Your task to perform on an android device: set the timer Image 0: 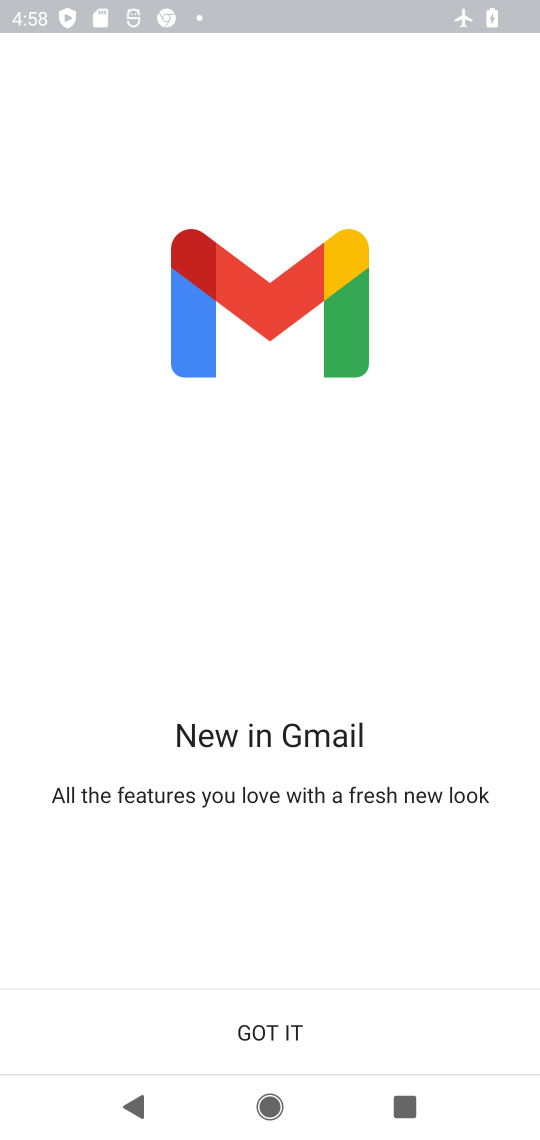
Step 0: press home button
Your task to perform on an android device: set the timer Image 1: 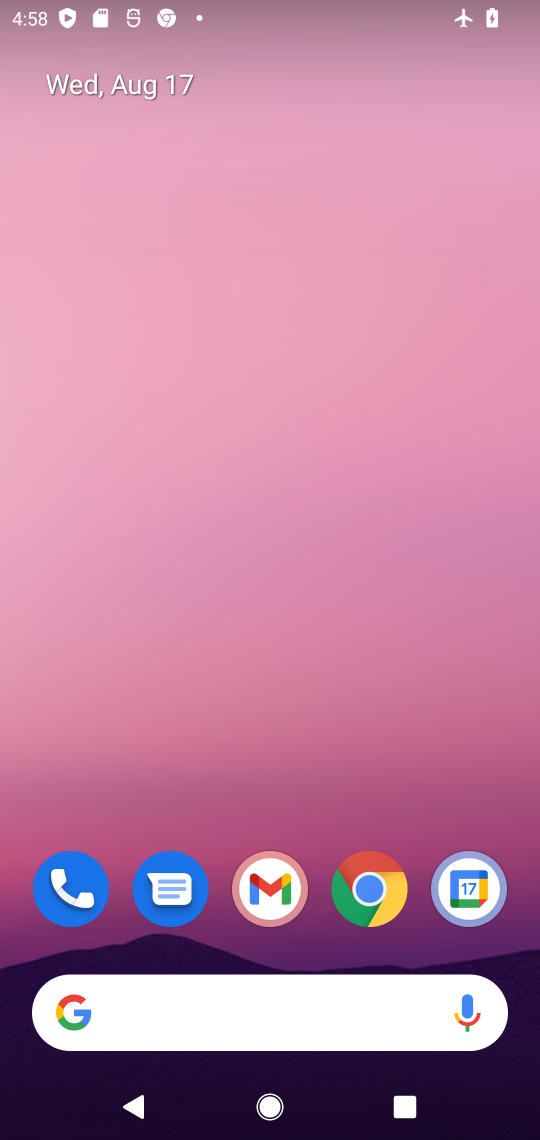
Step 1: drag from (293, 785) to (340, 51)
Your task to perform on an android device: set the timer Image 2: 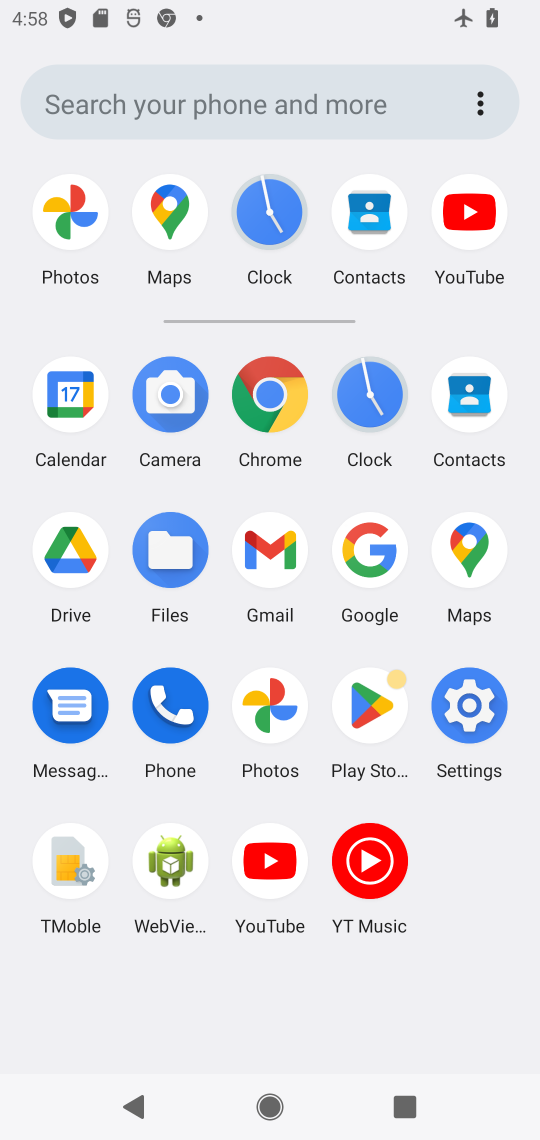
Step 2: click (271, 213)
Your task to perform on an android device: set the timer Image 3: 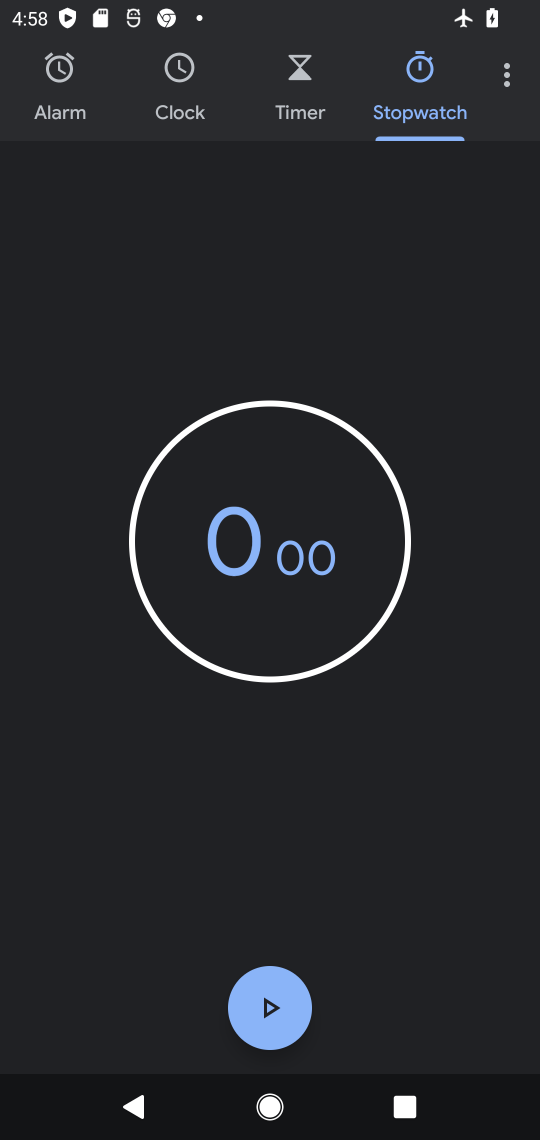
Step 3: click (298, 74)
Your task to perform on an android device: set the timer Image 4: 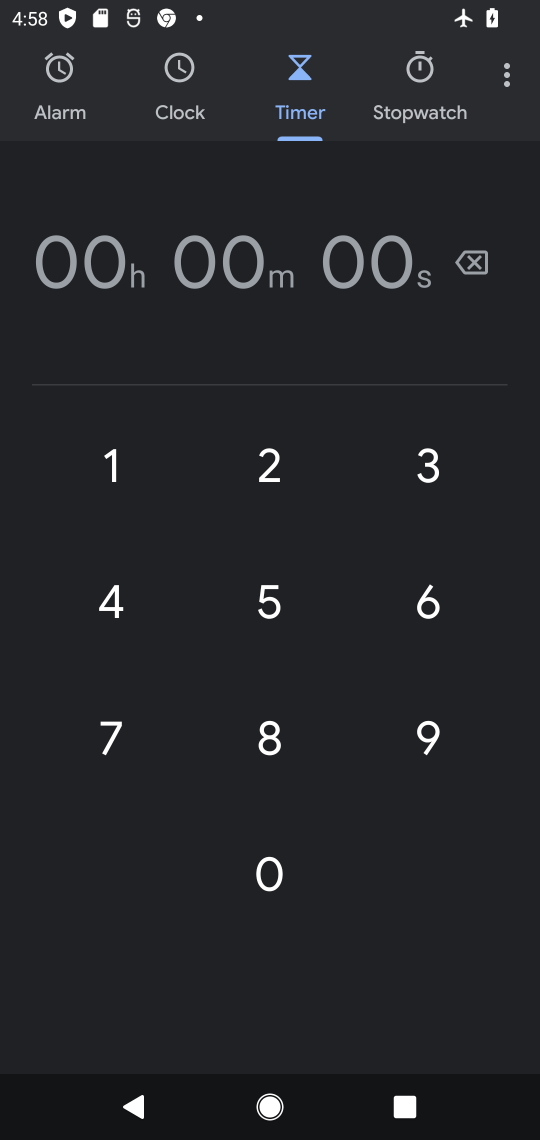
Step 4: click (119, 468)
Your task to perform on an android device: set the timer Image 5: 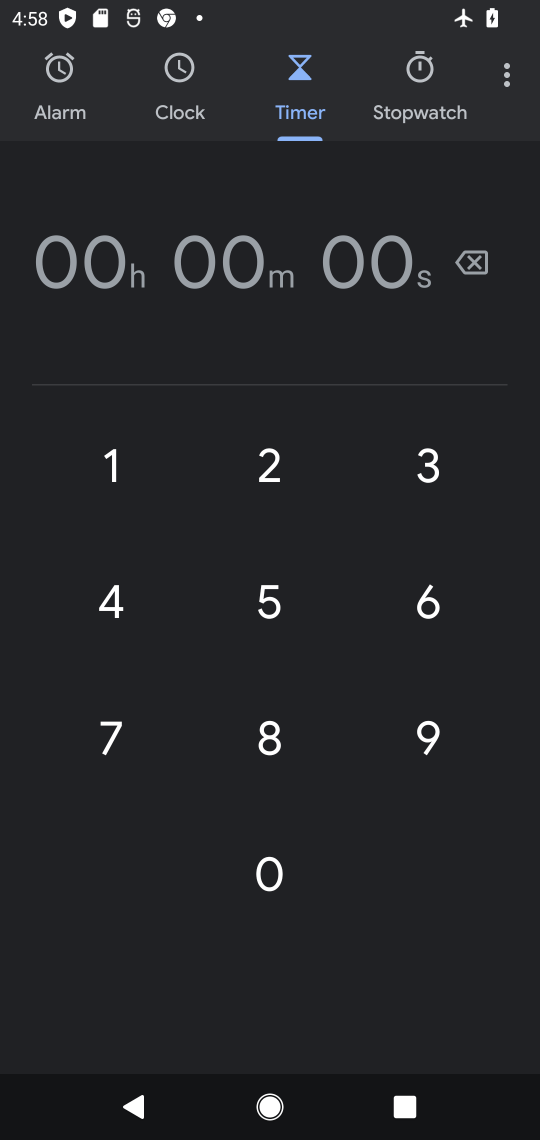
Step 5: click (119, 468)
Your task to perform on an android device: set the timer Image 6: 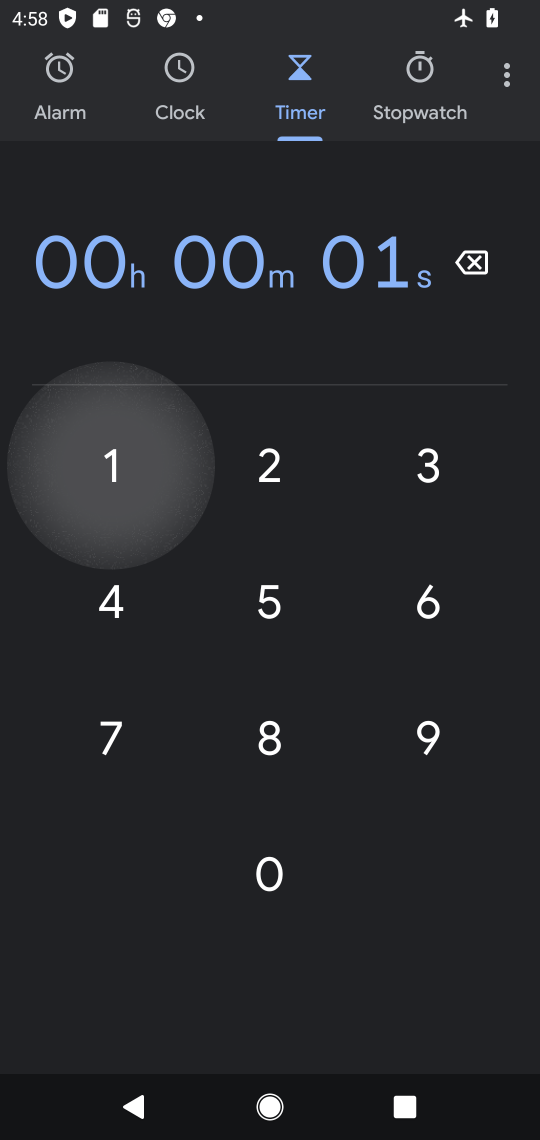
Step 6: click (119, 468)
Your task to perform on an android device: set the timer Image 7: 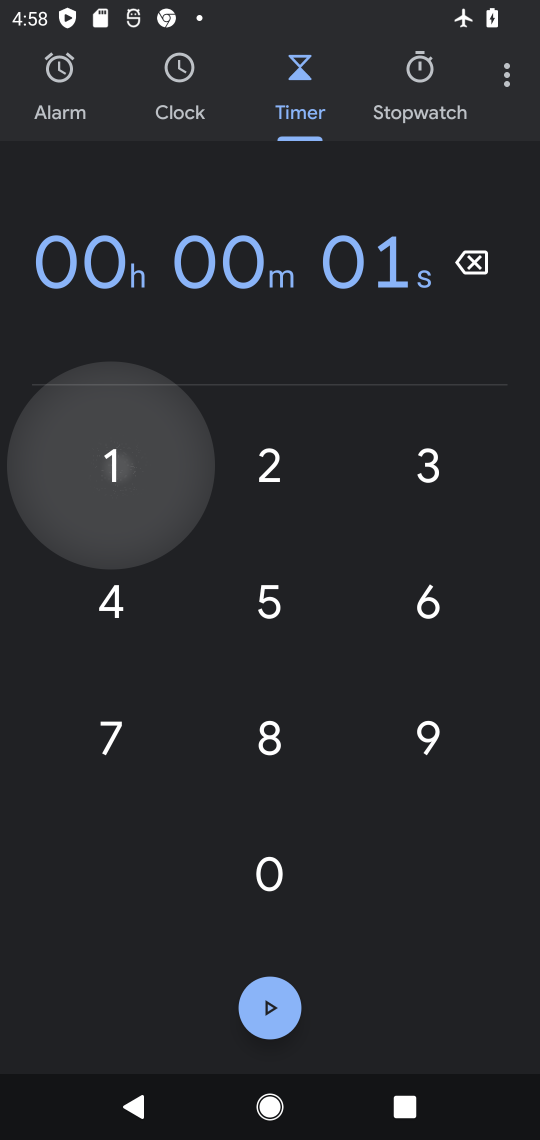
Step 7: click (119, 468)
Your task to perform on an android device: set the timer Image 8: 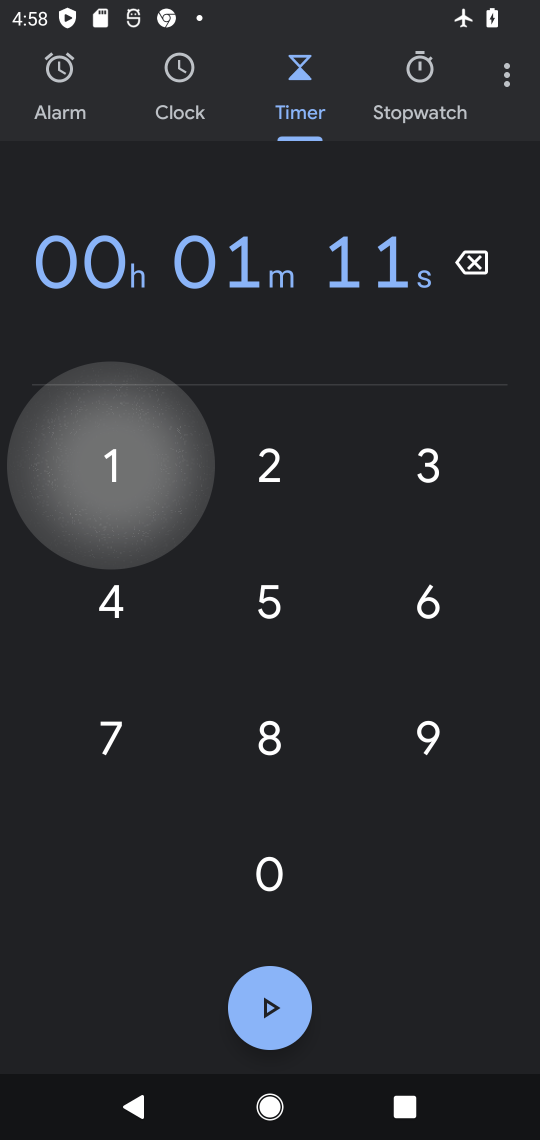
Step 8: click (119, 468)
Your task to perform on an android device: set the timer Image 9: 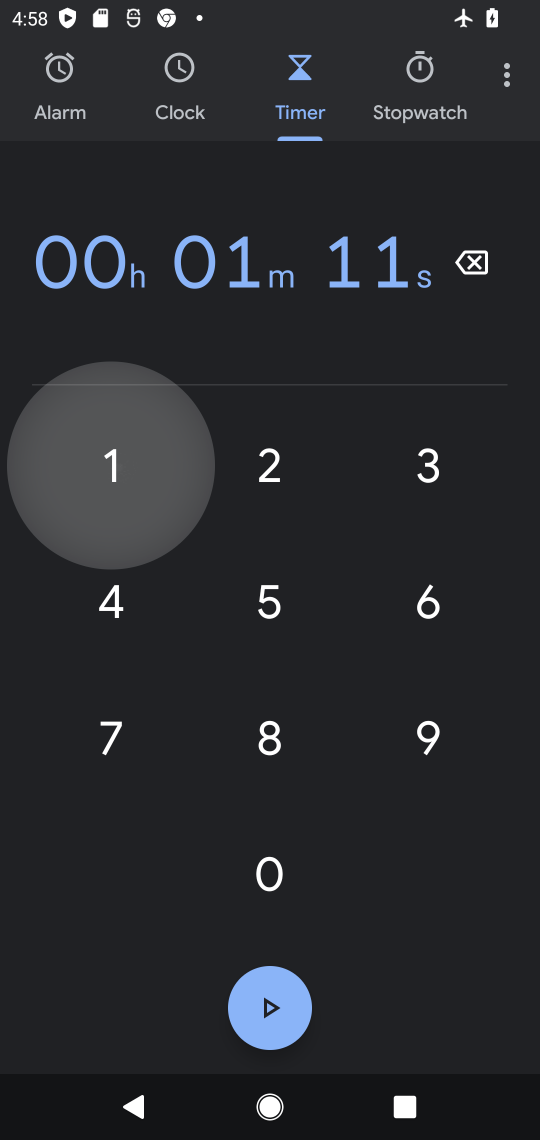
Step 9: click (119, 468)
Your task to perform on an android device: set the timer Image 10: 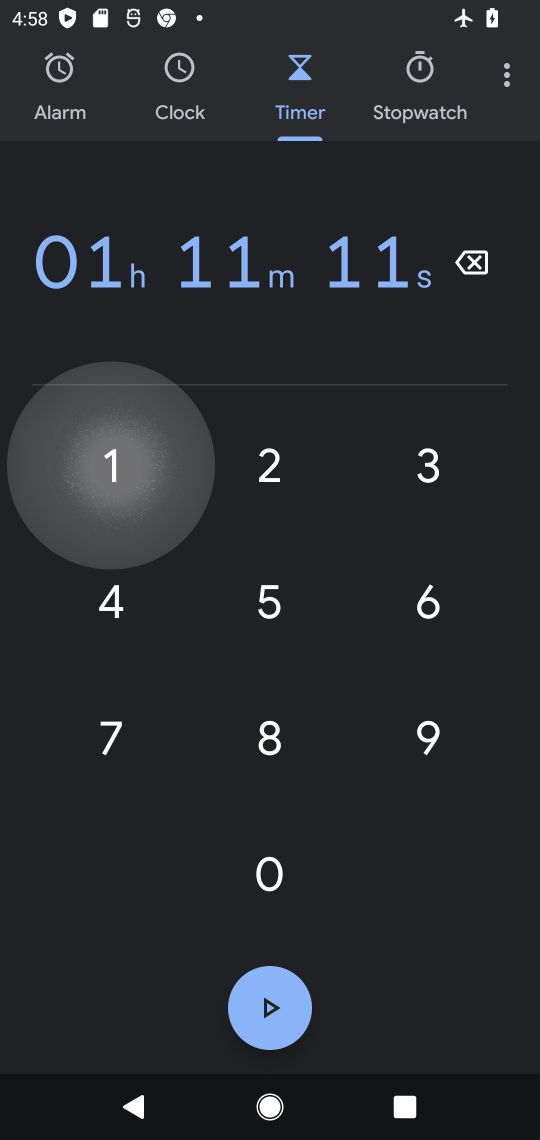
Step 10: click (119, 468)
Your task to perform on an android device: set the timer Image 11: 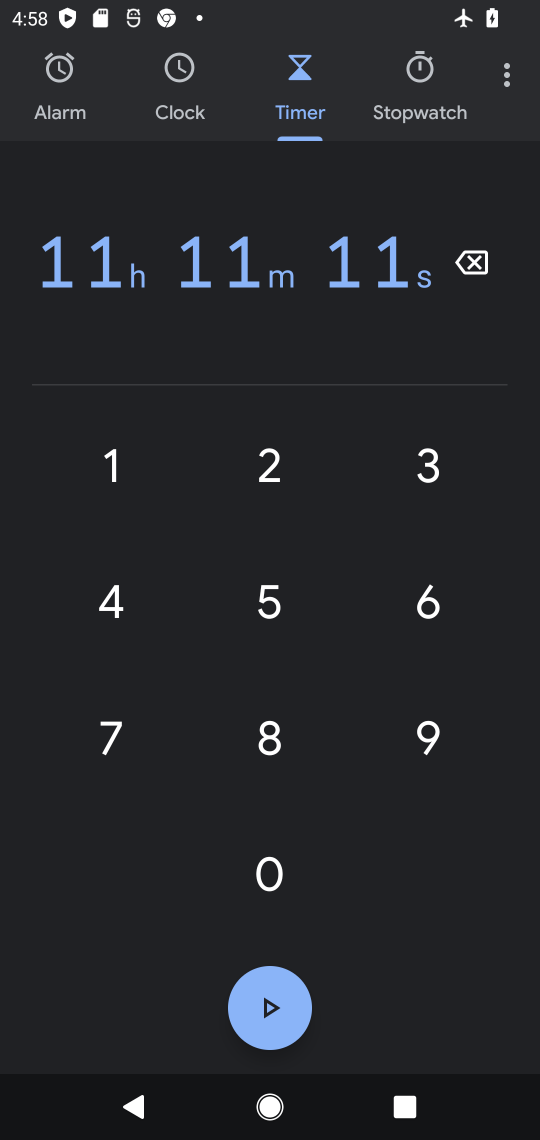
Step 11: task complete